Your task to perform on an android device: Search for sushi restaurants on Maps Image 0: 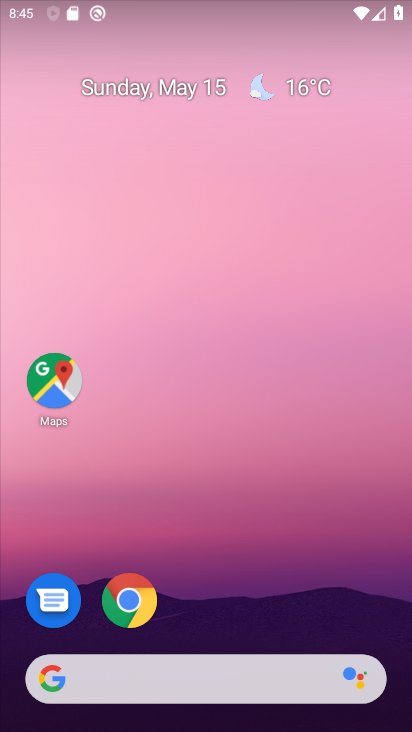
Step 0: drag from (246, 598) to (264, 119)
Your task to perform on an android device: Search for sushi restaurants on Maps Image 1: 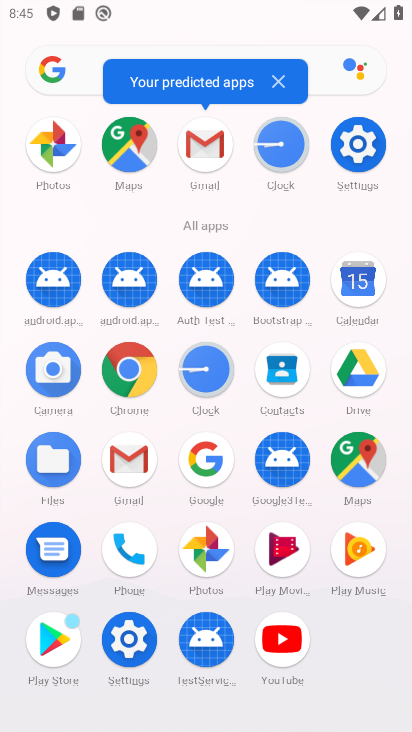
Step 1: click (126, 145)
Your task to perform on an android device: Search for sushi restaurants on Maps Image 2: 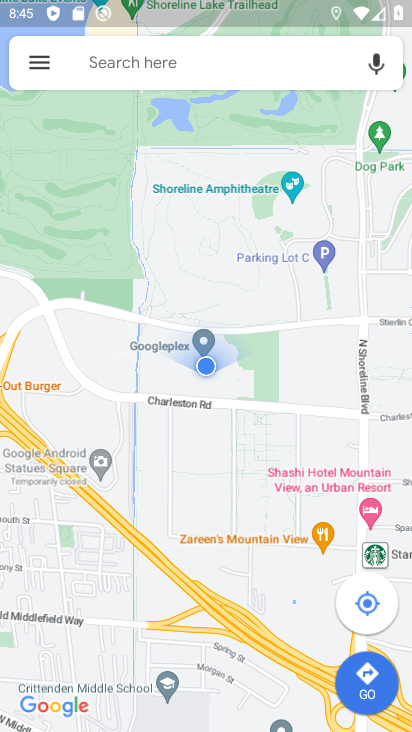
Step 2: click (150, 70)
Your task to perform on an android device: Search for sushi restaurants on Maps Image 3: 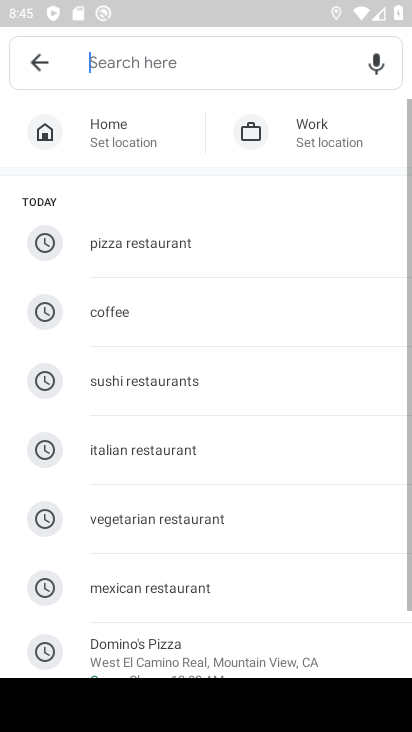
Step 3: click (159, 386)
Your task to perform on an android device: Search for sushi restaurants on Maps Image 4: 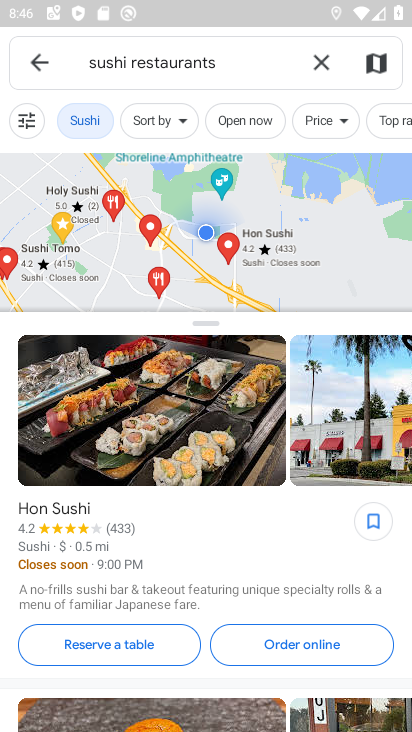
Step 4: task complete